Your task to perform on an android device: Add "rayovac triple a" to the cart on bestbuy.com Image 0: 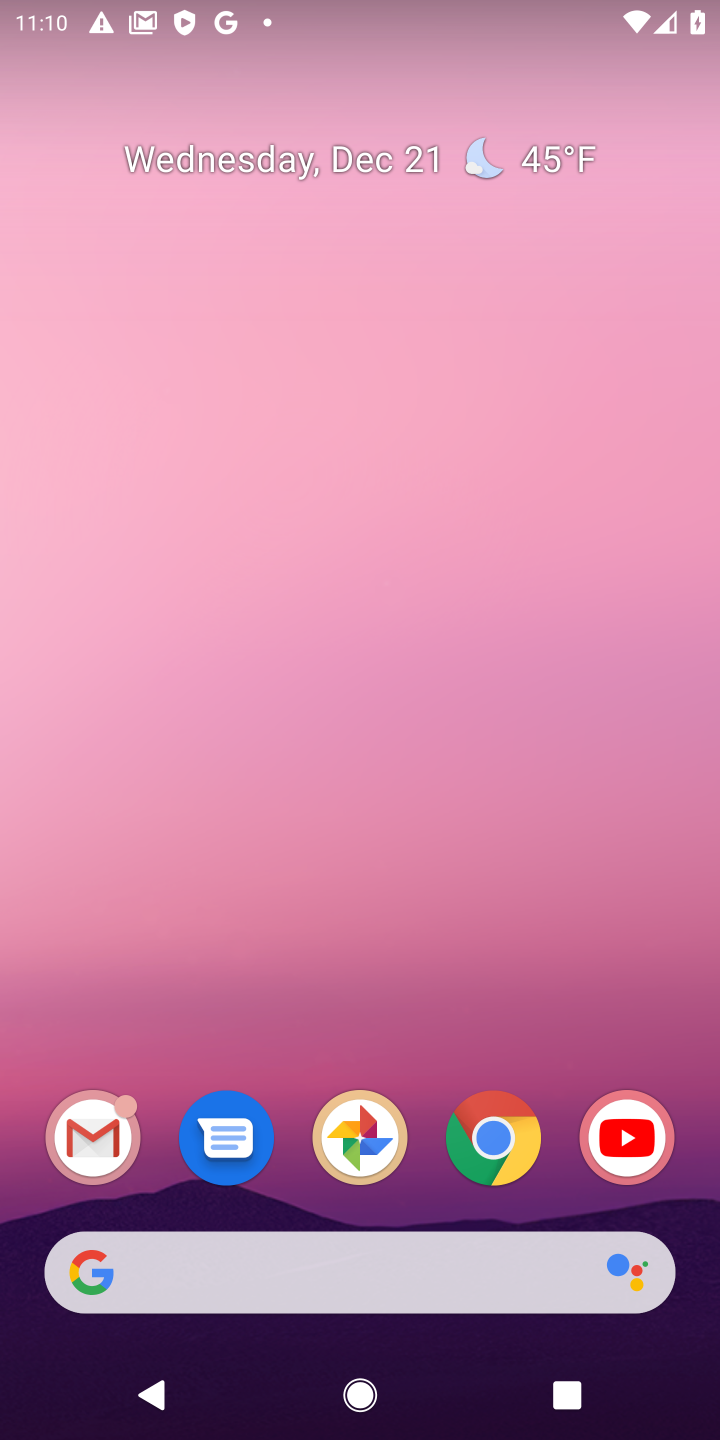
Step 0: click (491, 1153)
Your task to perform on an android device: Add "rayovac triple a" to the cart on bestbuy.com Image 1: 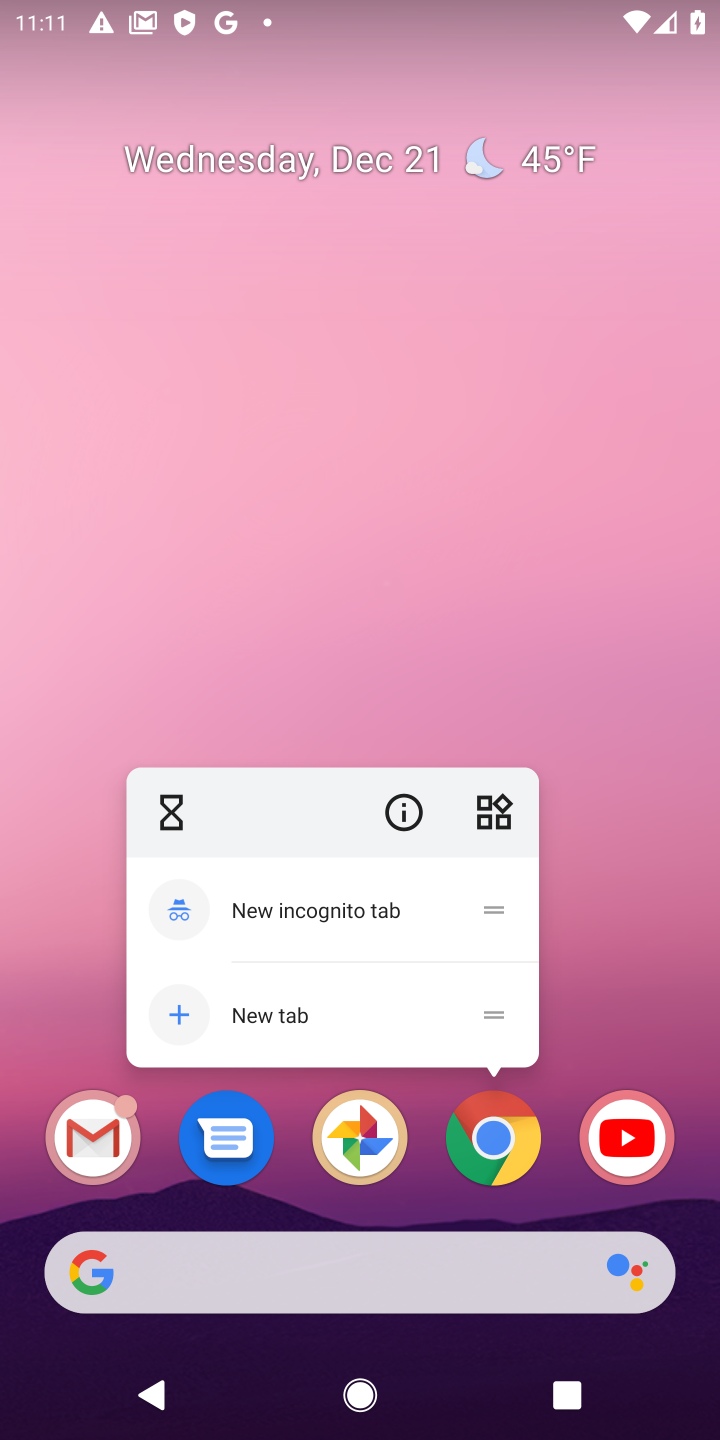
Step 1: click (493, 1150)
Your task to perform on an android device: Add "rayovac triple a" to the cart on bestbuy.com Image 2: 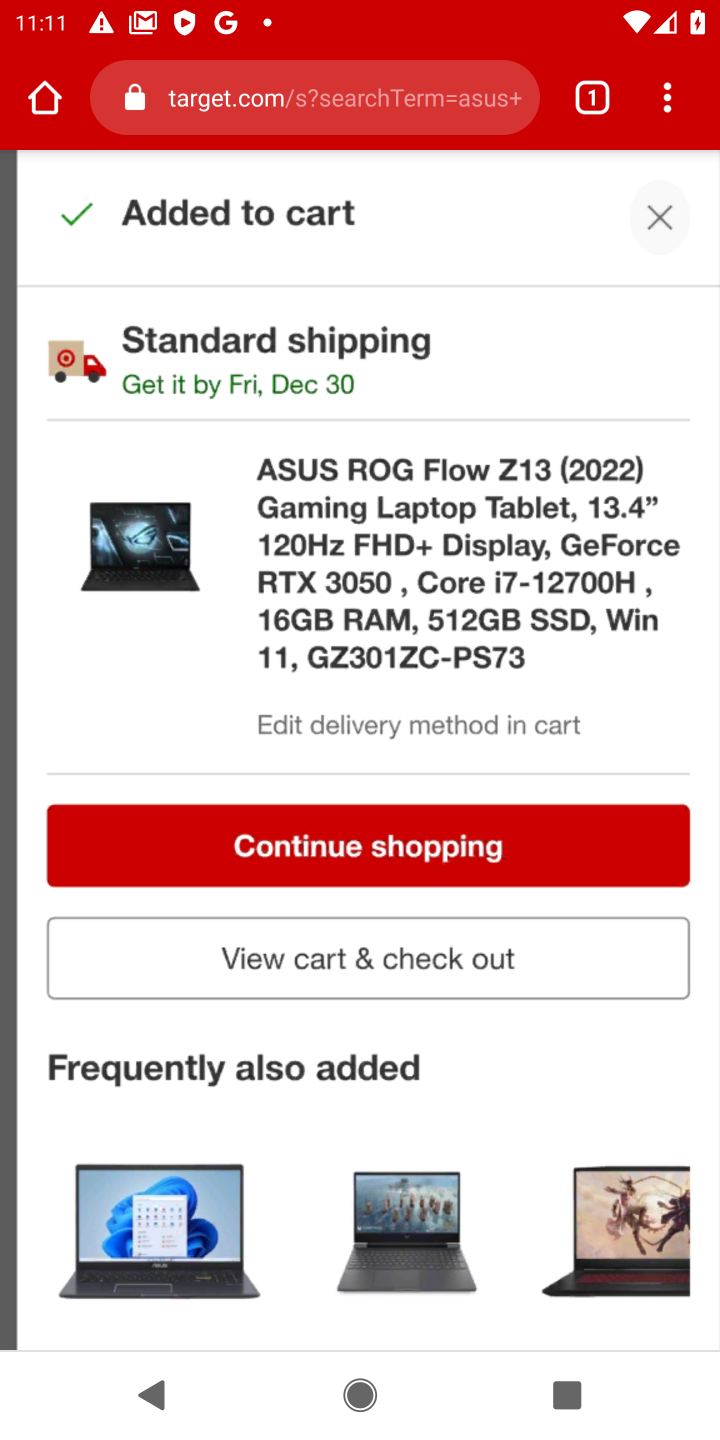
Step 2: click (255, 102)
Your task to perform on an android device: Add "rayovac triple a" to the cart on bestbuy.com Image 3: 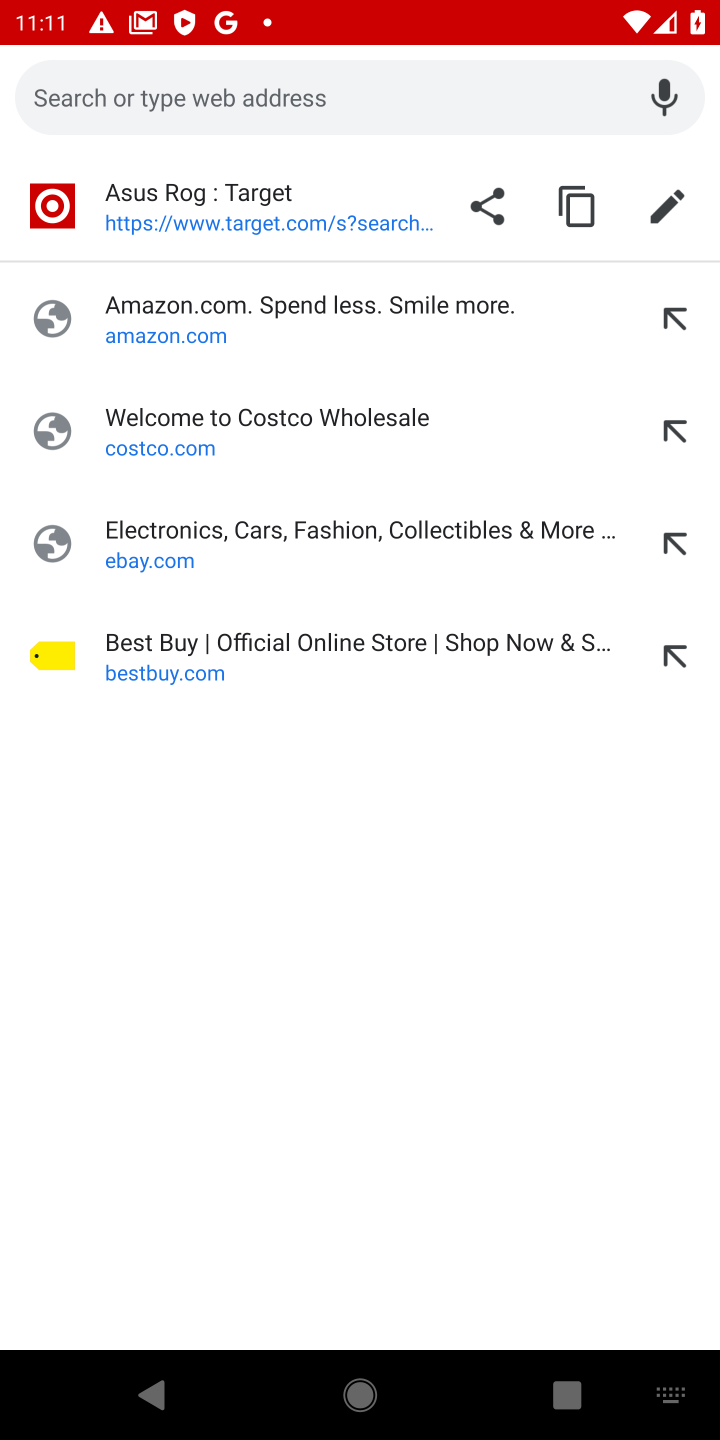
Step 3: click (157, 662)
Your task to perform on an android device: Add "rayovac triple a" to the cart on bestbuy.com Image 4: 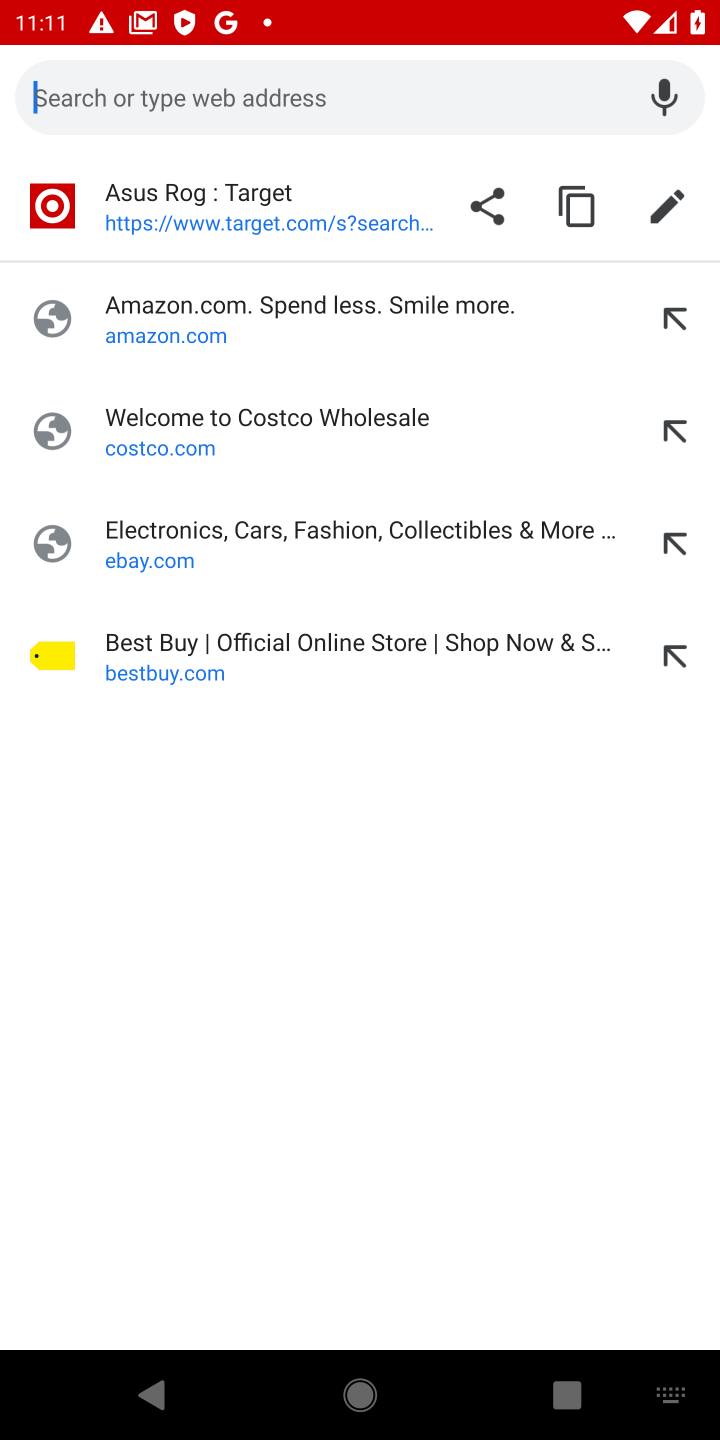
Step 4: click (141, 655)
Your task to perform on an android device: Add "rayovac triple a" to the cart on bestbuy.com Image 5: 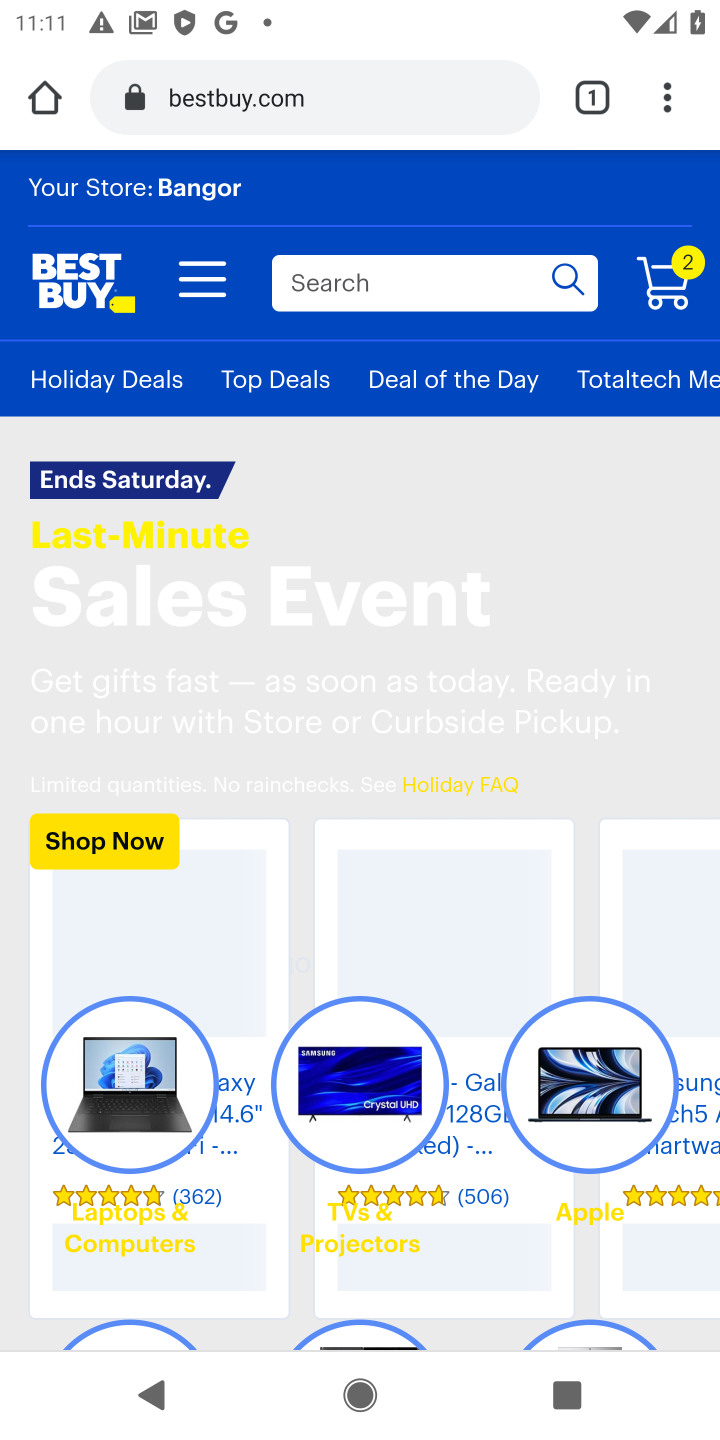
Step 5: click (309, 289)
Your task to perform on an android device: Add "rayovac triple a" to the cart on bestbuy.com Image 6: 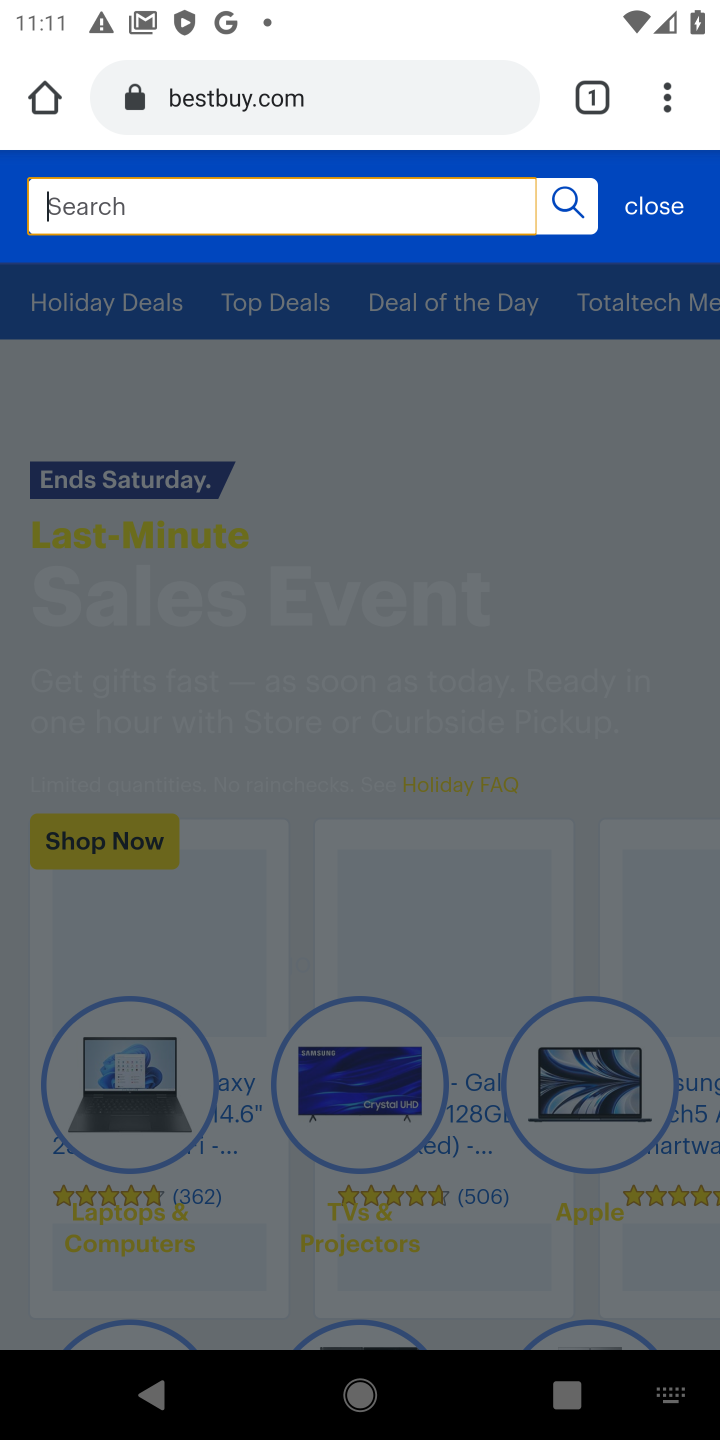
Step 6: type "rayovac triple a"
Your task to perform on an android device: Add "rayovac triple a" to the cart on bestbuy.com Image 7: 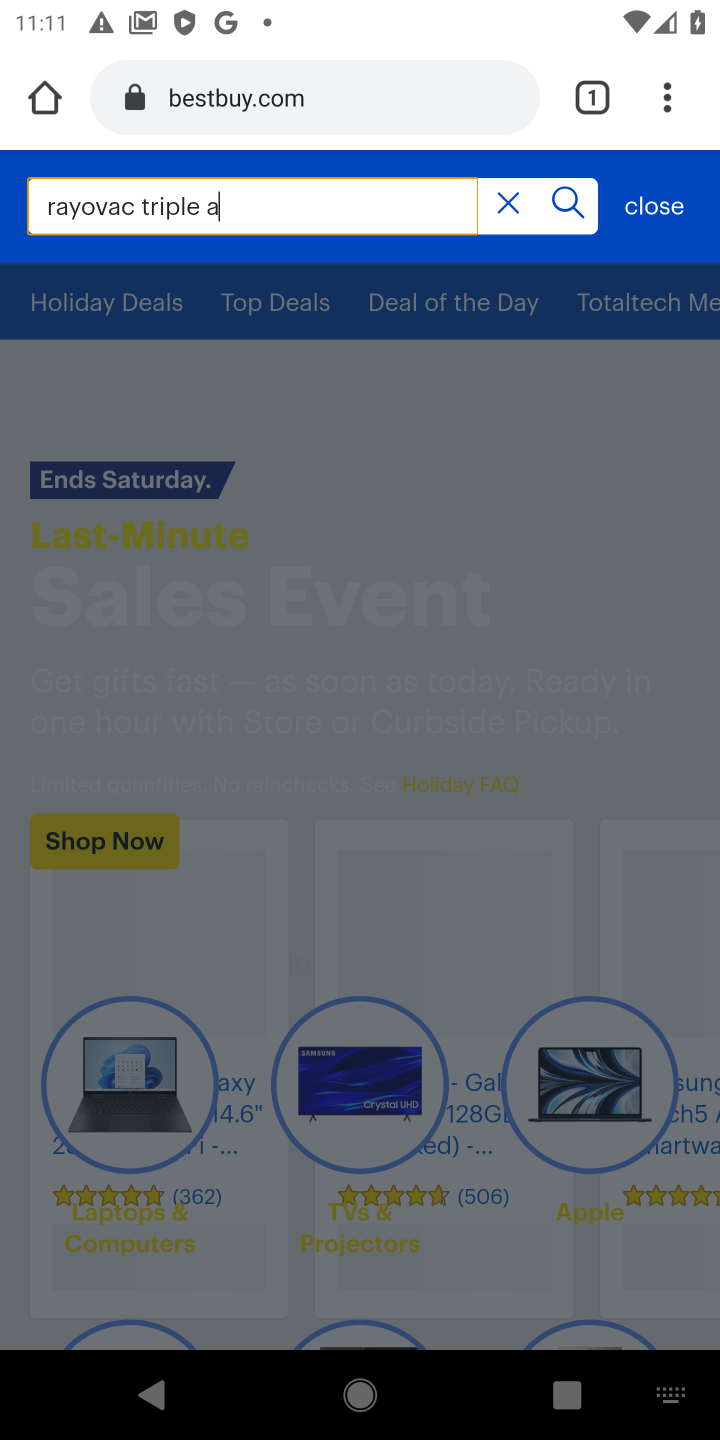
Step 7: click (578, 209)
Your task to perform on an android device: Add "rayovac triple a" to the cart on bestbuy.com Image 8: 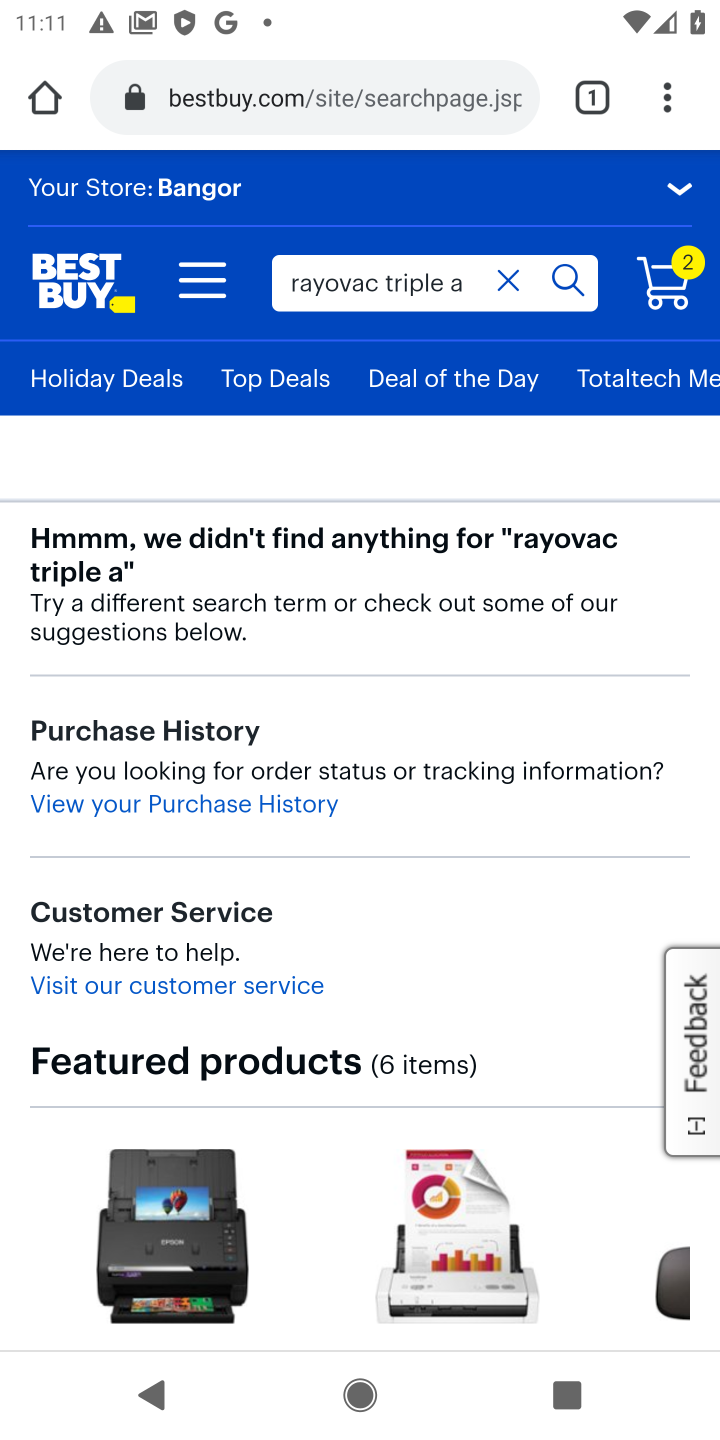
Step 8: task complete